Your task to perform on an android device: Search for sushi restaurants on Maps Image 0: 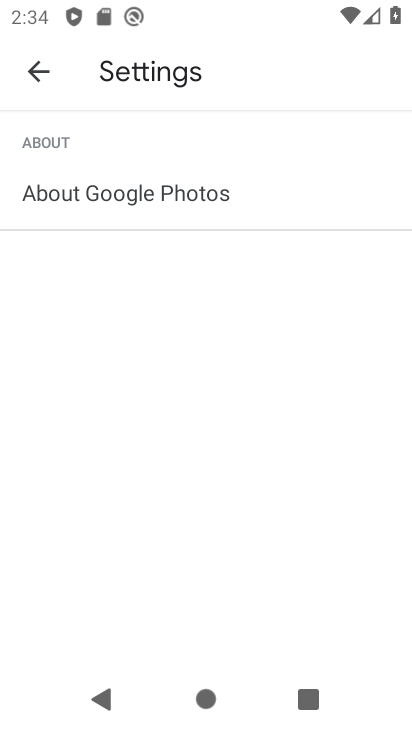
Step 0: press home button
Your task to perform on an android device: Search for sushi restaurants on Maps Image 1: 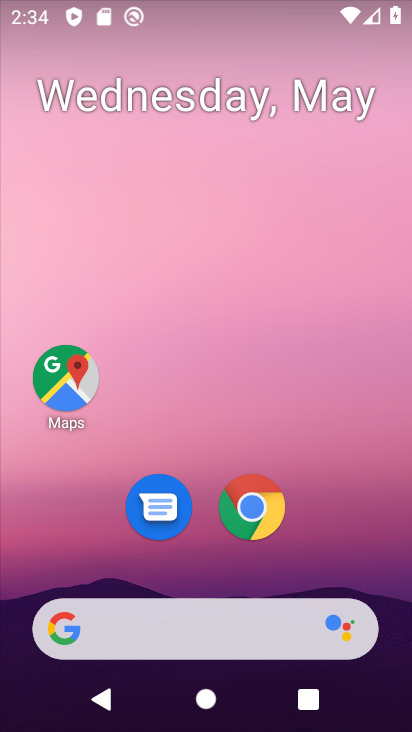
Step 1: click (52, 365)
Your task to perform on an android device: Search for sushi restaurants on Maps Image 2: 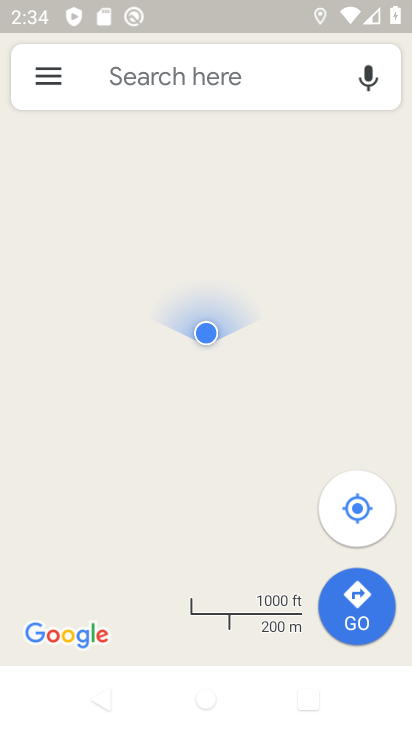
Step 2: click (205, 73)
Your task to perform on an android device: Search for sushi restaurants on Maps Image 3: 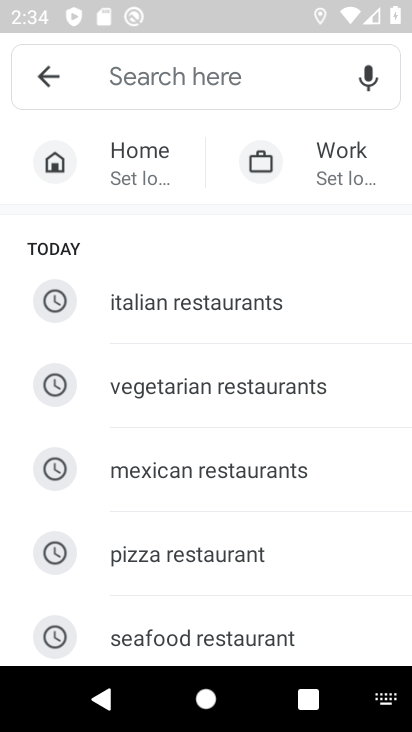
Step 3: type "sushi restaurants"
Your task to perform on an android device: Search for sushi restaurants on Maps Image 4: 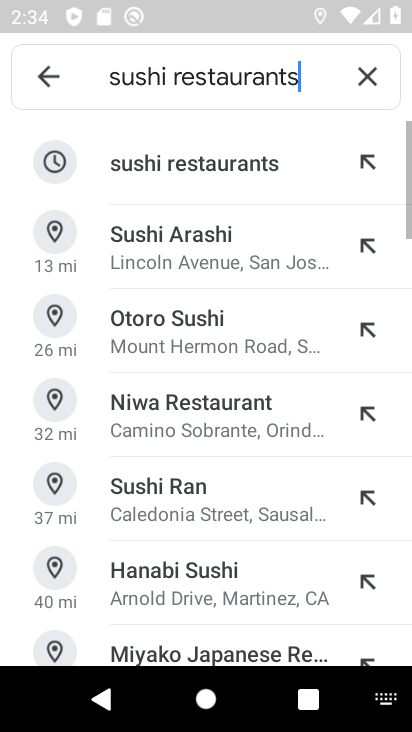
Step 4: click (205, 172)
Your task to perform on an android device: Search for sushi restaurants on Maps Image 5: 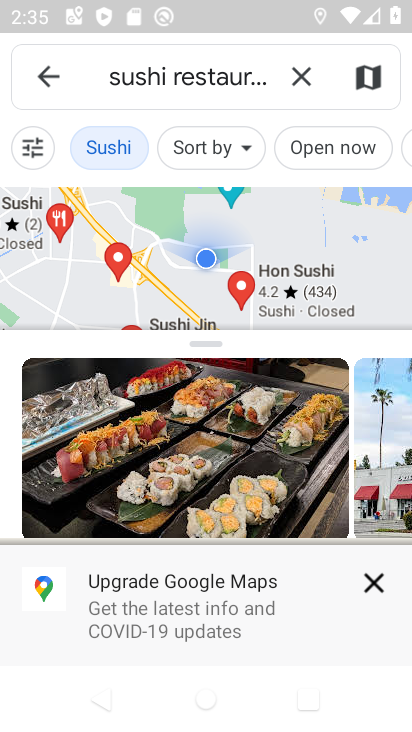
Step 5: click (318, 154)
Your task to perform on an android device: Search for sushi restaurants on Maps Image 6: 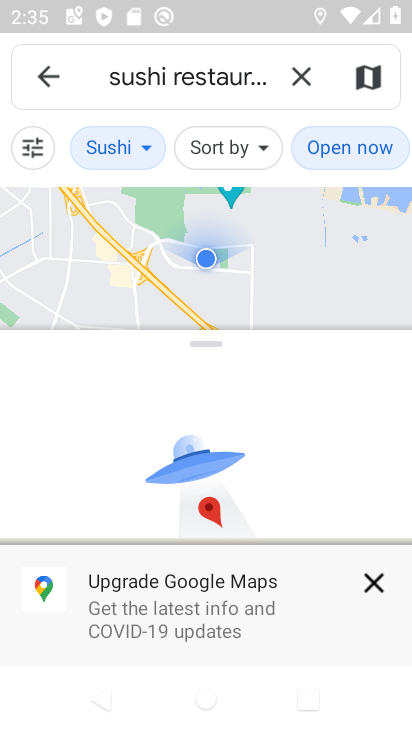
Step 6: task complete